Your task to perform on an android device: Do I have any events today? Image 0: 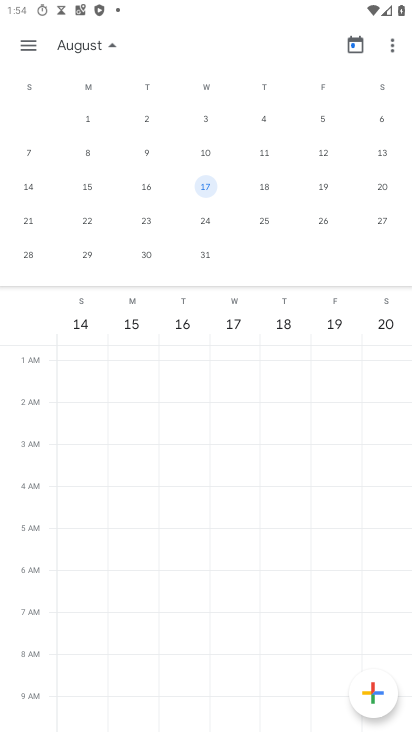
Step 0: drag from (62, 192) to (406, 211)
Your task to perform on an android device: Do I have any events today? Image 1: 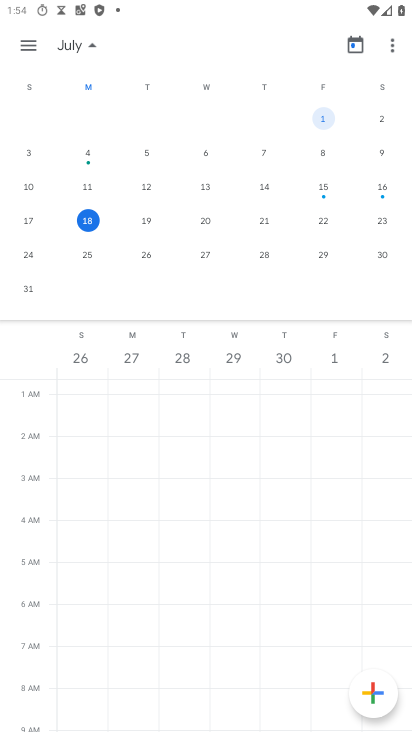
Step 1: click (151, 221)
Your task to perform on an android device: Do I have any events today? Image 2: 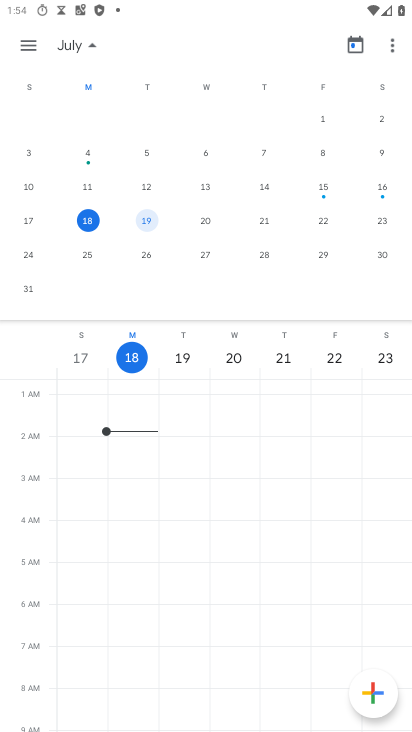
Step 2: task complete